Your task to perform on an android device: Search for pizza restaurants on Maps Image 0: 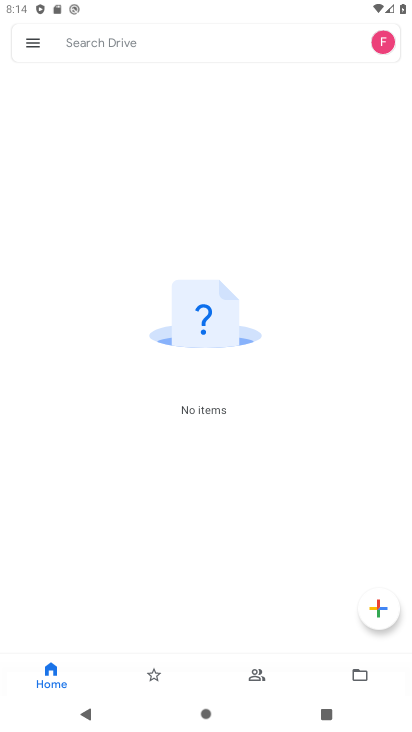
Step 0: press home button
Your task to perform on an android device: Search for pizza restaurants on Maps Image 1: 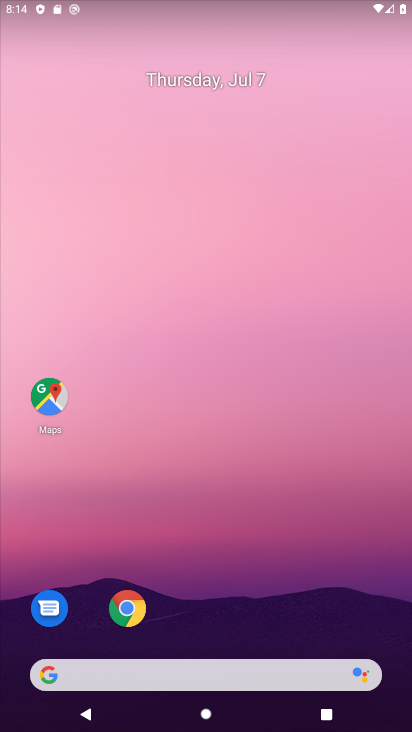
Step 1: click (47, 397)
Your task to perform on an android device: Search for pizza restaurants on Maps Image 2: 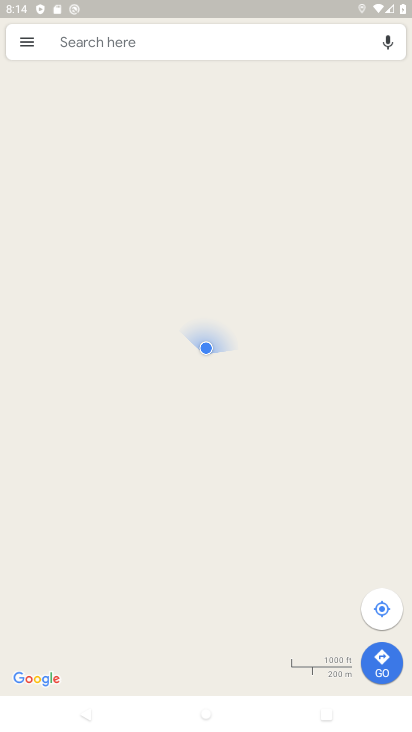
Step 2: click (203, 53)
Your task to perform on an android device: Search for pizza restaurants on Maps Image 3: 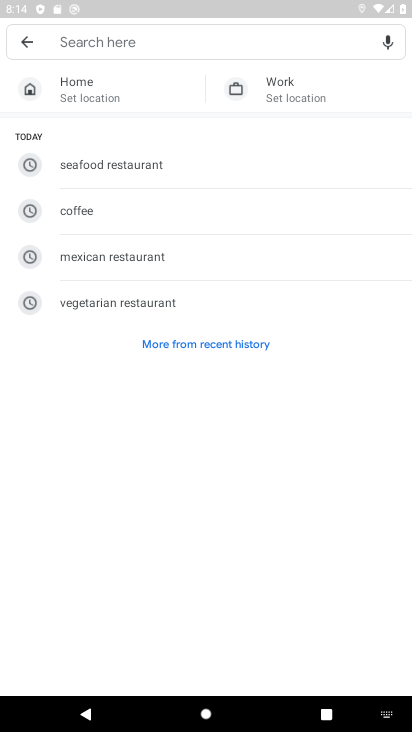
Step 3: type "pizza restaurants"
Your task to perform on an android device: Search for pizza restaurants on Maps Image 4: 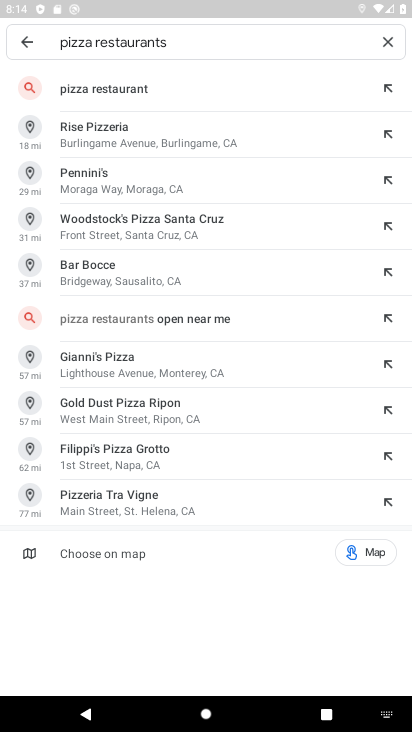
Step 4: click (131, 92)
Your task to perform on an android device: Search for pizza restaurants on Maps Image 5: 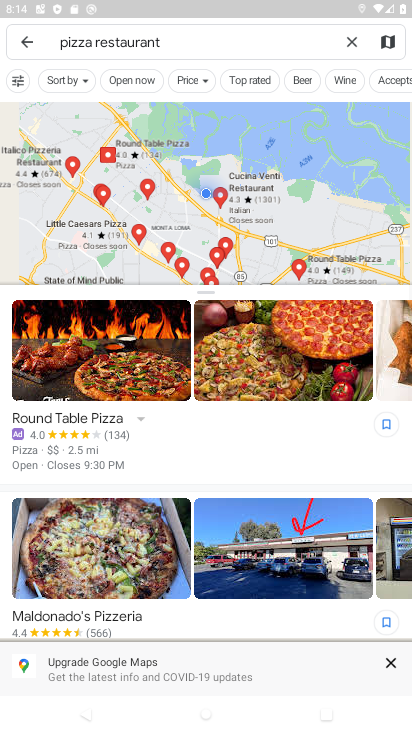
Step 5: task complete